Your task to perform on an android device: Open accessibility settings Image 0: 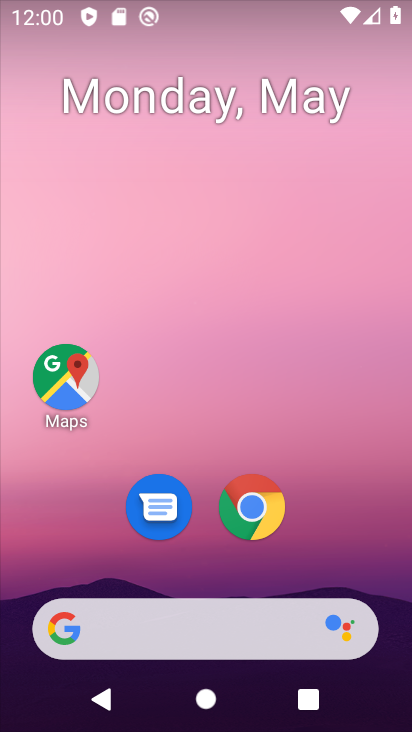
Step 0: drag from (219, 722) to (218, 196)
Your task to perform on an android device: Open accessibility settings Image 1: 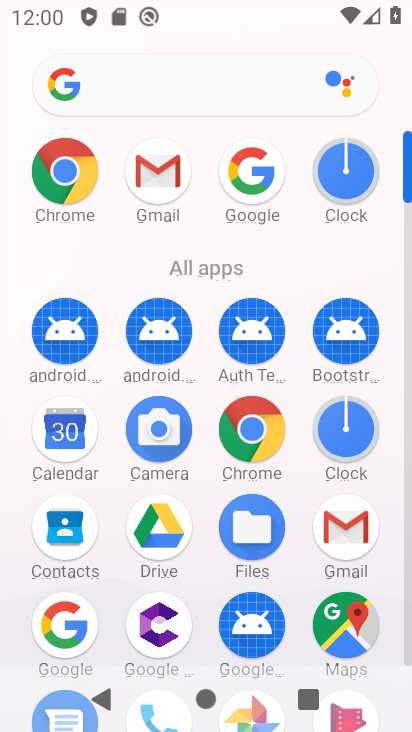
Step 1: drag from (199, 616) to (207, 175)
Your task to perform on an android device: Open accessibility settings Image 2: 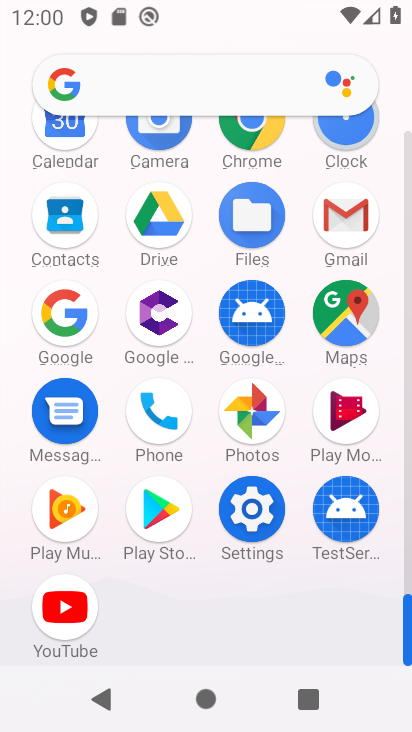
Step 2: click (252, 520)
Your task to perform on an android device: Open accessibility settings Image 3: 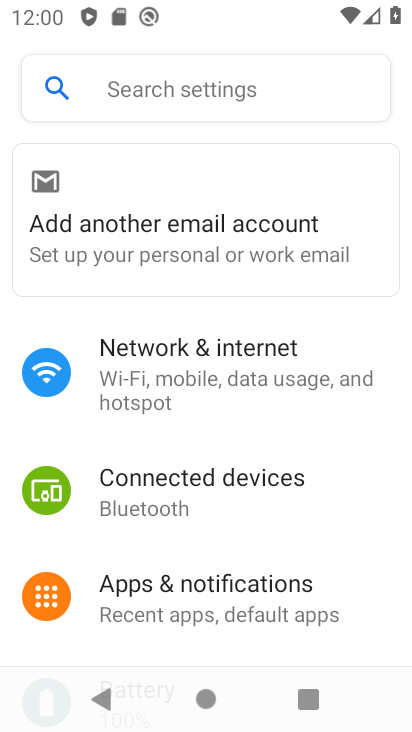
Step 3: drag from (174, 637) to (189, 258)
Your task to perform on an android device: Open accessibility settings Image 4: 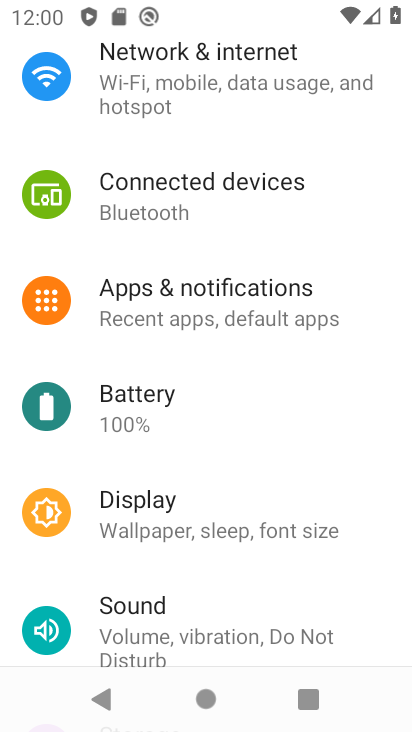
Step 4: drag from (180, 611) to (187, 224)
Your task to perform on an android device: Open accessibility settings Image 5: 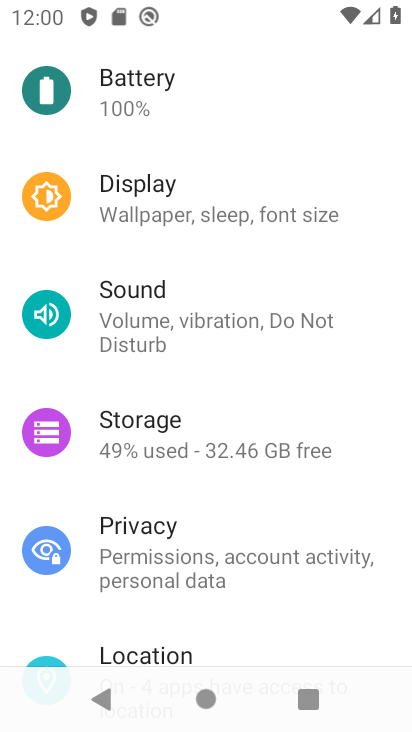
Step 5: drag from (167, 641) to (196, 289)
Your task to perform on an android device: Open accessibility settings Image 6: 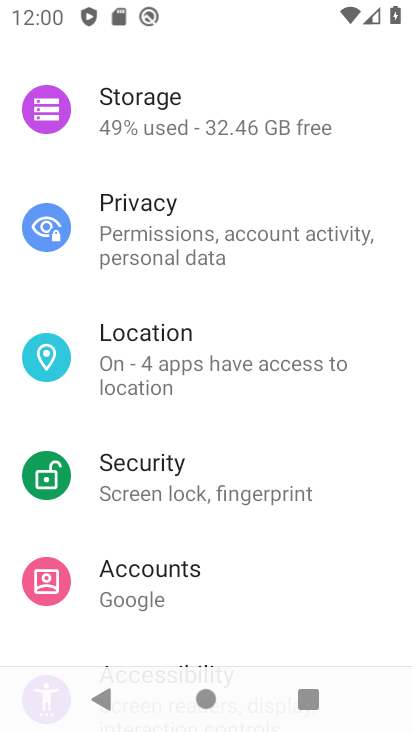
Step 6: drag from (147, 639) to (155, 221)
Your task to perform on an android device: Open accessibility settings Image 7: 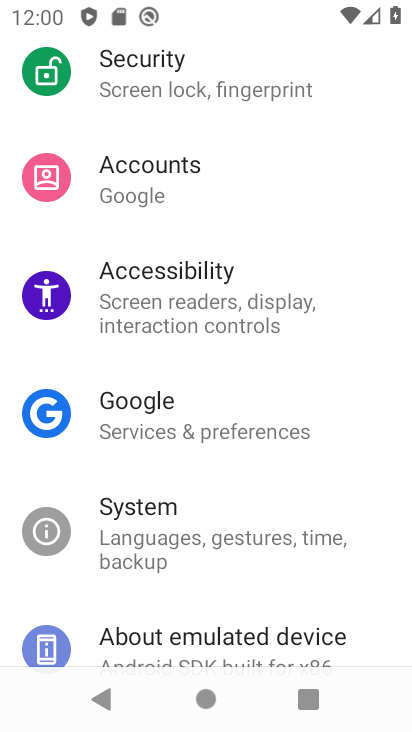
Step 7: click (173, 292)
Your task to perform on an android device: Open accessibility settings Image 8: 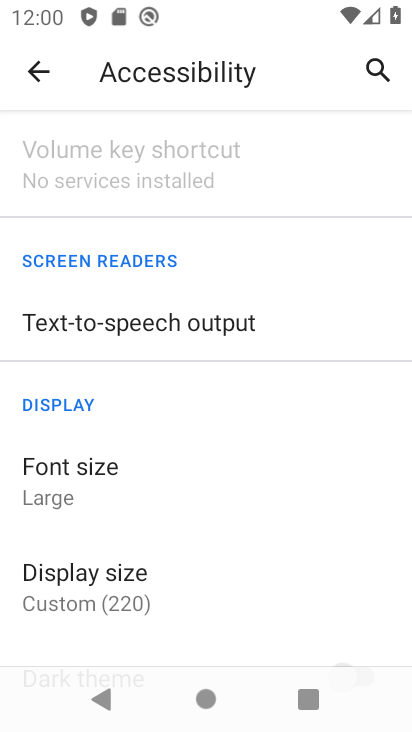
Step 8: task complete